Your task to perform on an android device: see sites visited before in the chrome app Image 0: 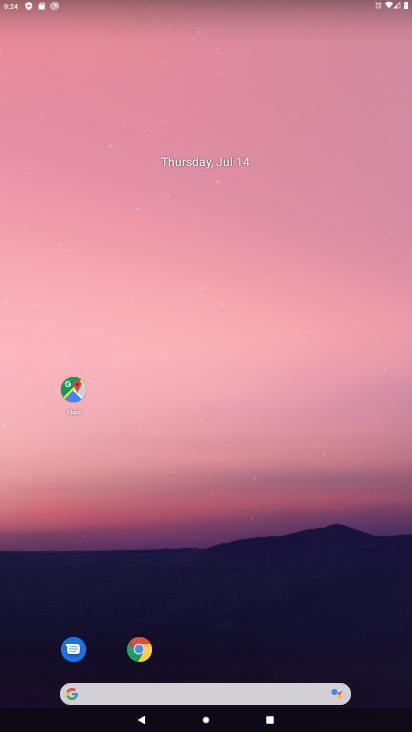
Step 0: drag from (164, 709) to (120, 7)
Your task to perform on an android device: see sites visited before in the chrome app Image 1: 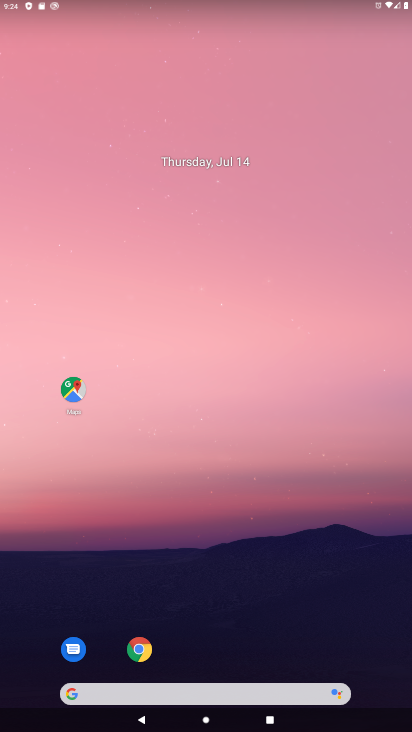
Step 1: click (232, 718)
Your task to perform on an android device: see sites visited before in the chrome app Image 2: 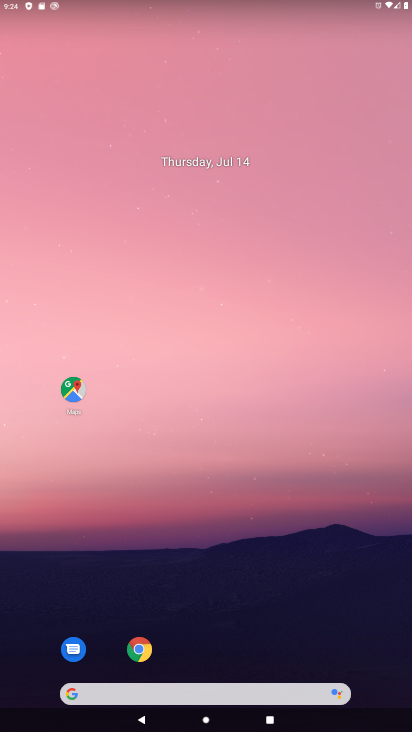
Step 2: click (129, 641)
Your task to perform on an android device: see sites visited before in the chrome app Image 3: 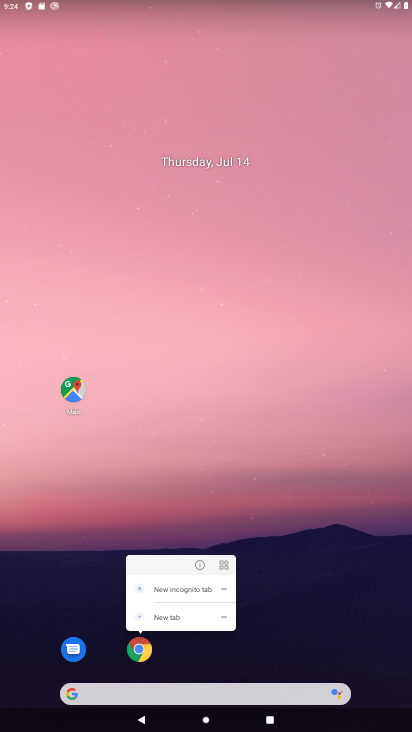
Step 3: click (130, 641)
Your task to perform on an android device: see sites visited before in the chrome app Image 4: 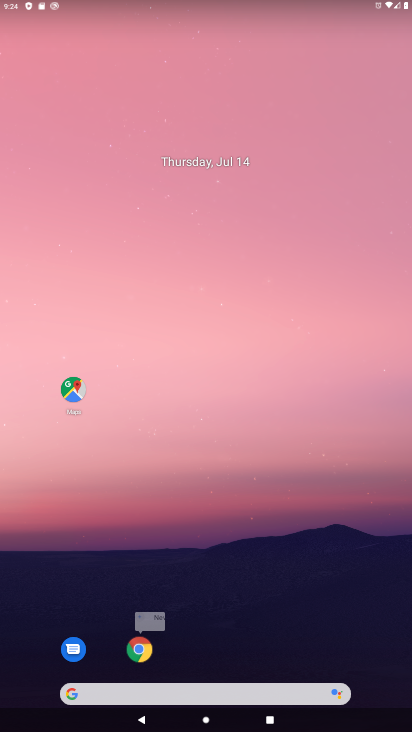
Step 4: click (130, 641)
Your task to perform on an android device: see sites visited before in the chrome app Image 5: 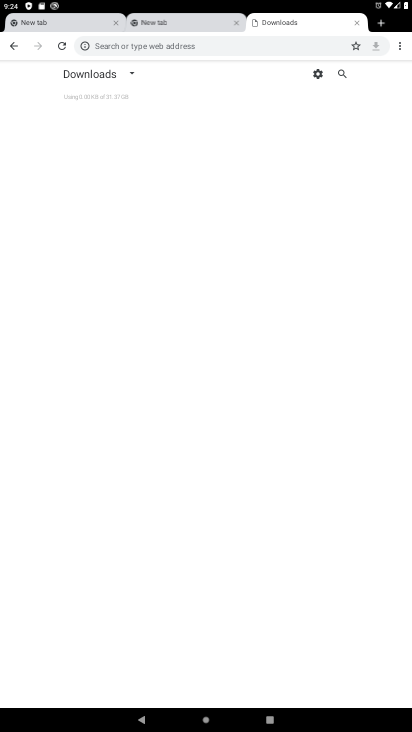
Step 5: click (400, 48)
Your task to perform on an android device: see sites visited before in the chrome app Image 6: 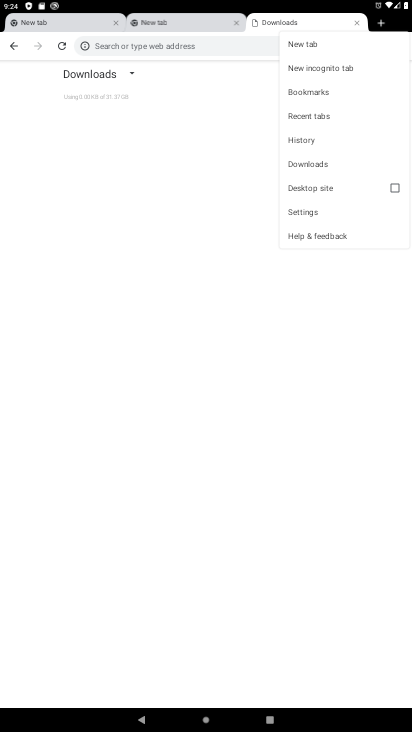
Step 6: click (333, 115)
Your task to perform on an android device: see sites visited before in the chrome app Image 7: 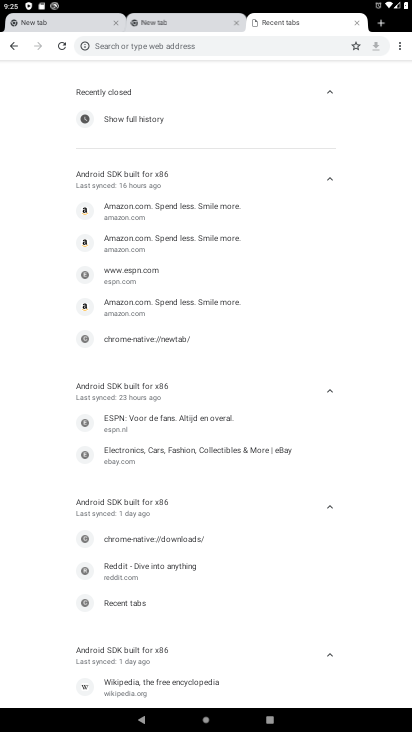
Step 7: task complete